Your task to perform on an android device: Find coffee shops on Maps Image 0: 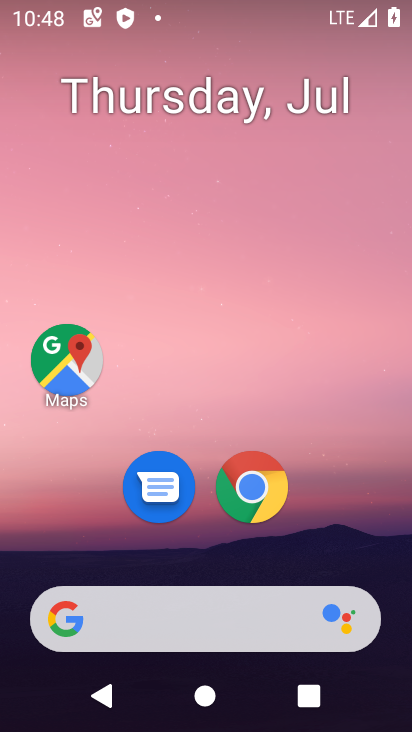
Step 0: click (45, 373)
Your task to perform on an android device: Find coffee shops on Maps Image 1: 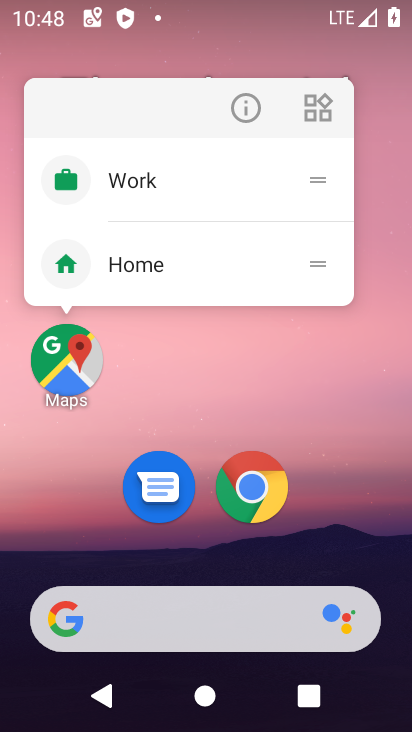
Step 1: click (73, 348)
Your task to perform on an android device: Find coffee shops on Maps Image 2: 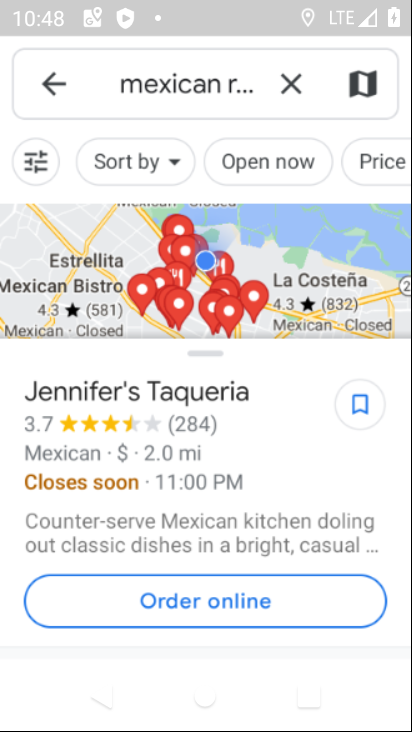
Step 2: click (291, 91)
Your task to perform on an android device: Find coffee shops on Maps Image 3: 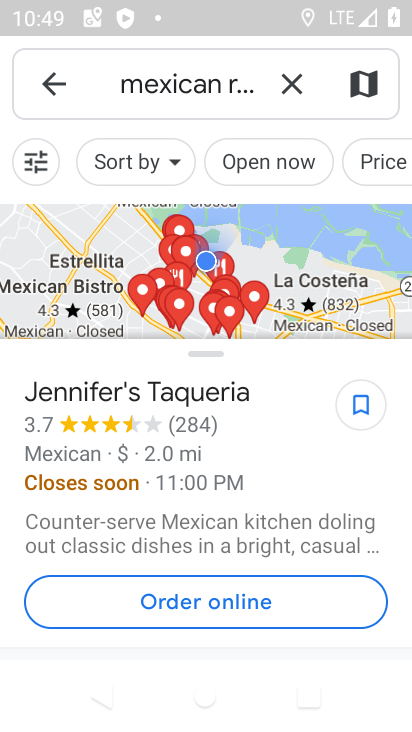
Step 3: click (293, 89)
Your task to perform on an android device: Find coffee shops on Maps Image 4: 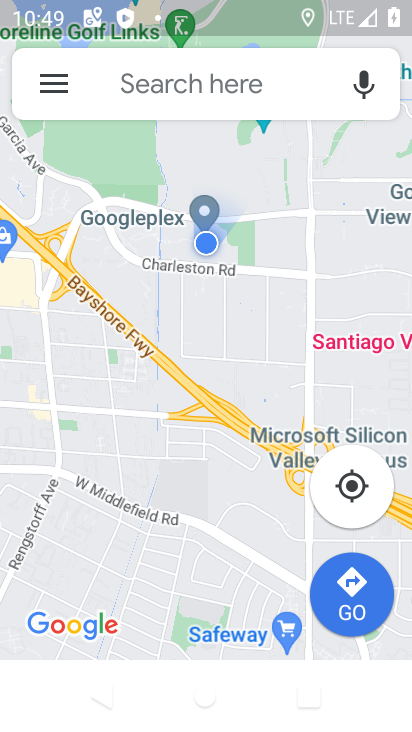
Step 4: click (203, 87)
Your task to perform on an android device: Find coffee shops on Maps Image 5: 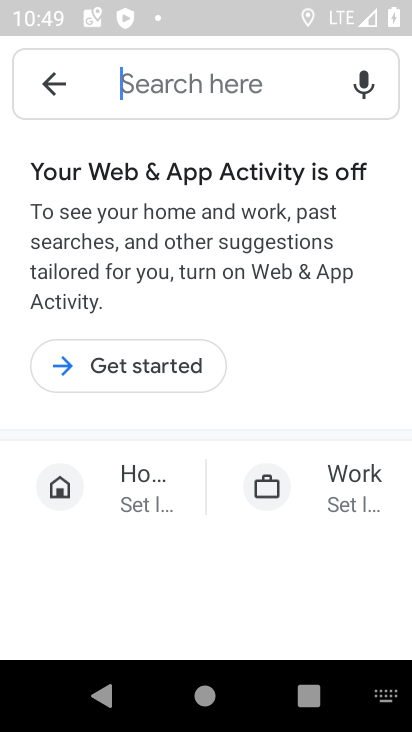
Step 5: type "coffee shops"
Your task to perform on an android device: Find coffee shops on Maps Image 6: 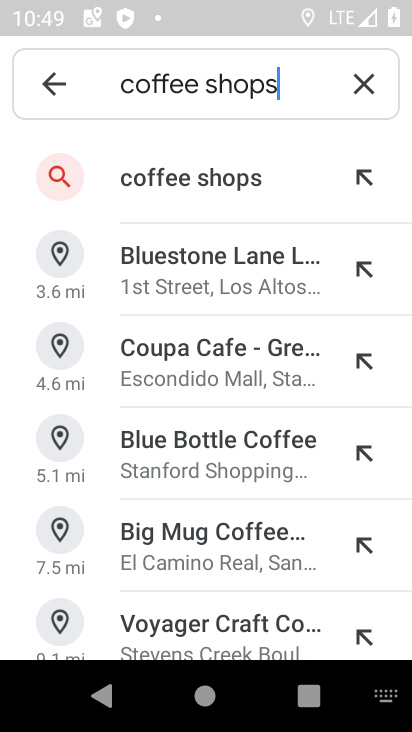
Step 6: click (156, 175)
Your task to perform on an android device: Find coffee shops on Maps Image 7: 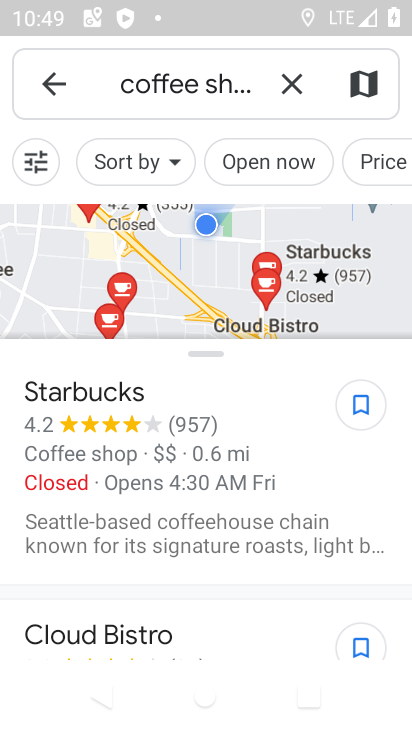
Step 7: task complete